Your task to perform on an android device: Go to network settings Image 0: 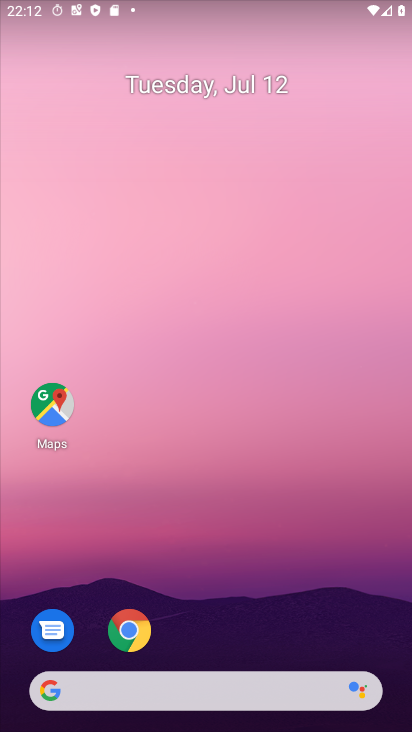
Step 0: drag from (261, 650) to (281, 50)
Your task to perform on an android device: Go to network settings Image 1: 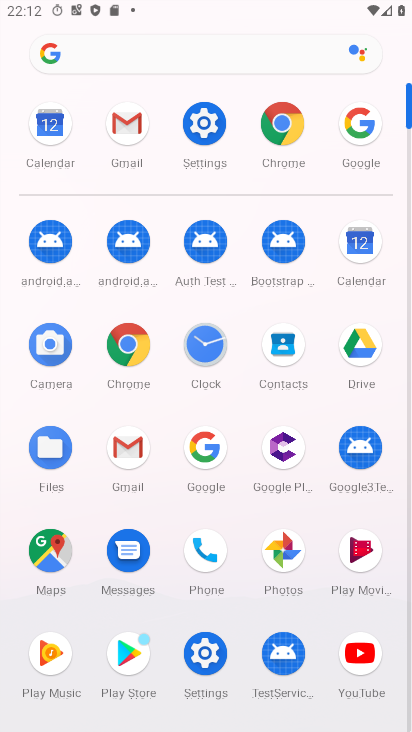
Step 1: click (207, 128)
Your task to perform on an android device: Go to network settings Image 2: 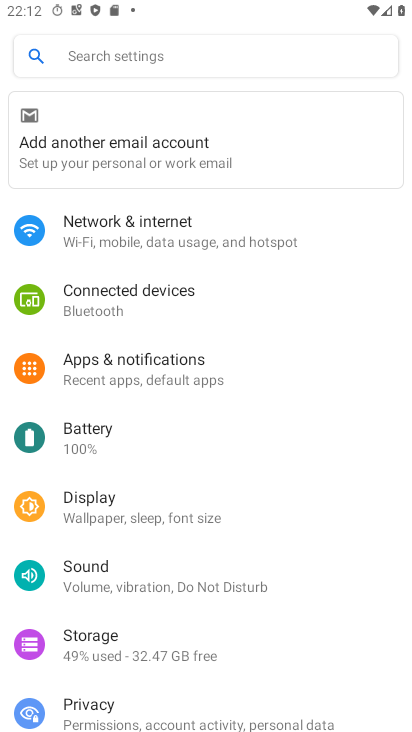
Step 2: click (149, 224)
Your task to perform on an android device: Go to network settings Image 3: 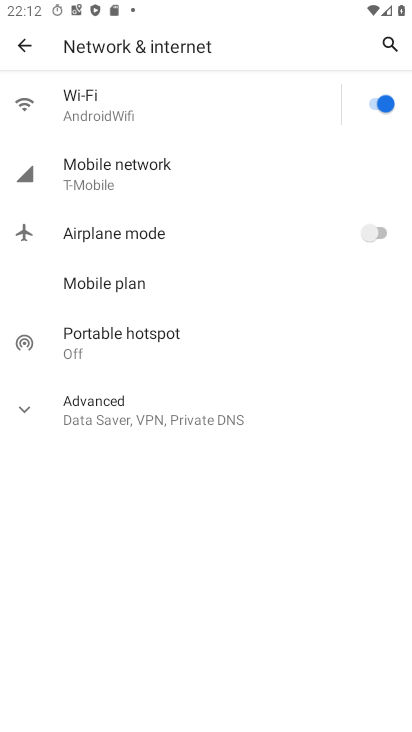
Step 3: task complete